Your task to perform on an android device: refresh tabs in the chrome app Image 0: 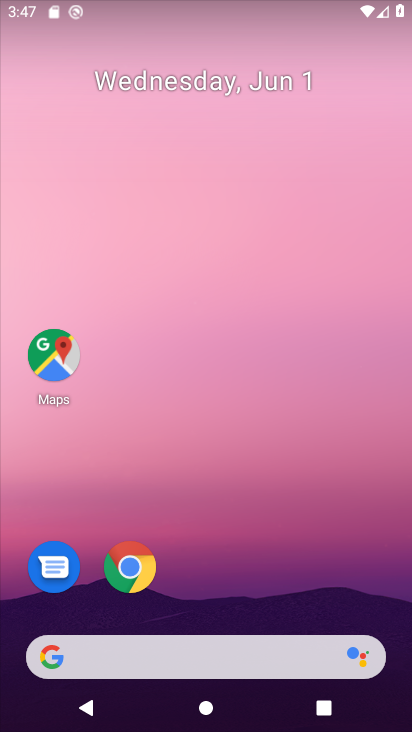
Step 0: click (136, 567)
Your task to perform on an android device: refresh tabs in the chrome app Image 1: 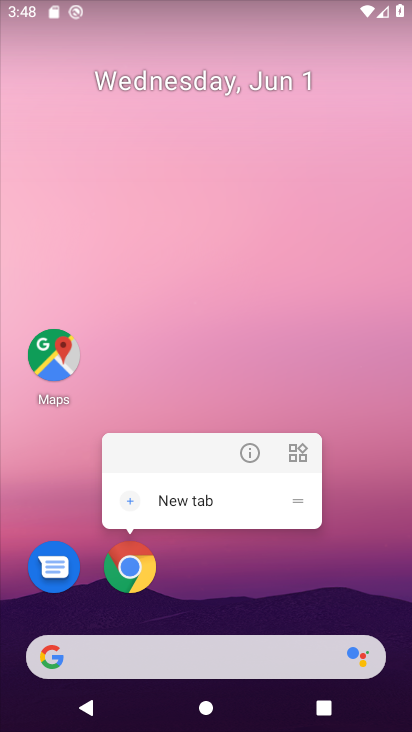
Step 1: click (135, 570)
Your task to perform on an android device: refresh tabs in the chrome app Image 2: 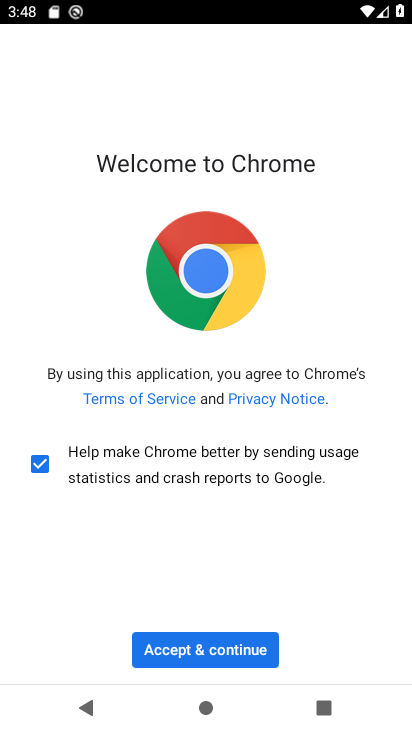
Step 2: click (170, 647)
Your task to perform on an android device: refresh tabs in the chrome app Image 3: 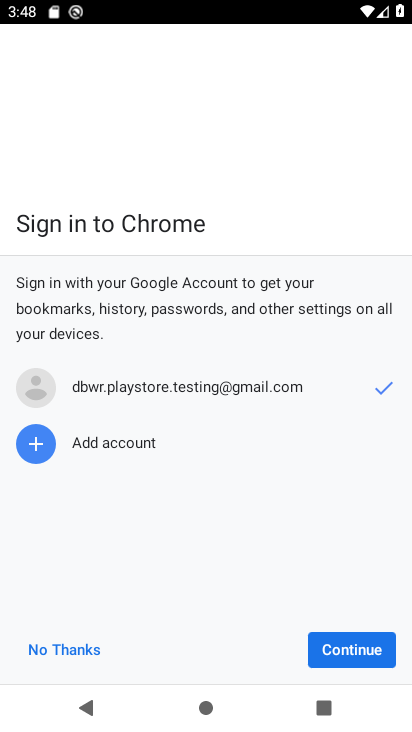
Step 3: click (341, 635)
Your task to perform on an android device: refresh tabs in the chrome app Image 4: 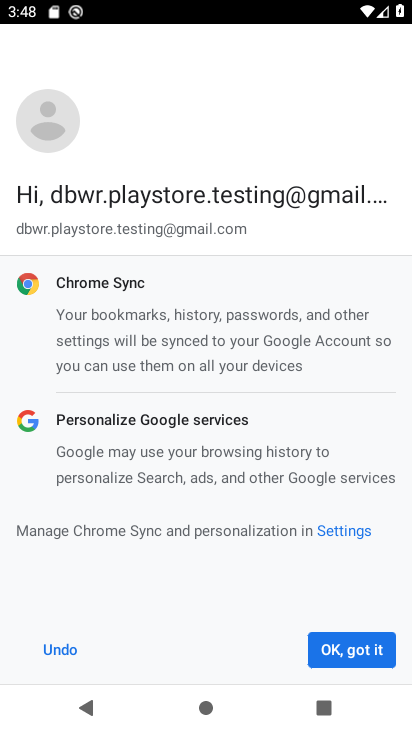
Step 4: click (360, 645)
Your task to perform on an android device: refresh tabs in the chrome app Image 5: 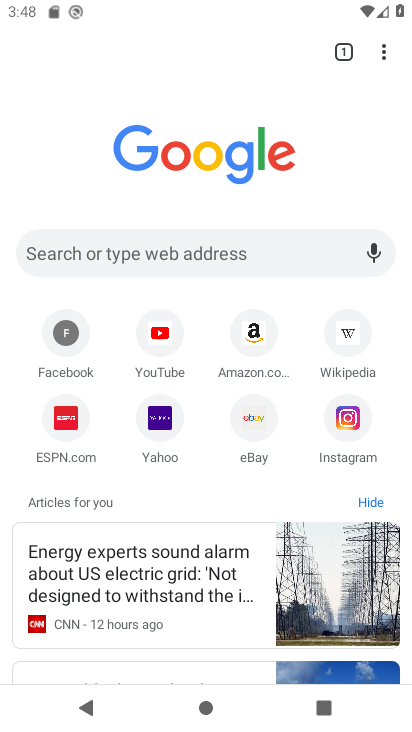
Step 5: click (384, 53)
Your task to perform on an android device: refresh tabs in the chrome app Image 6: 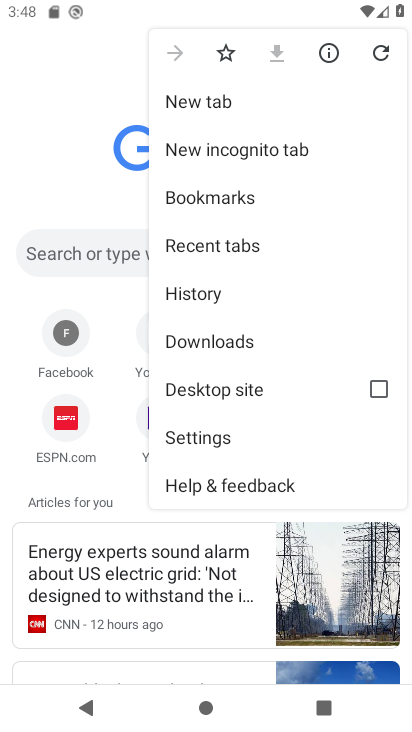
Step 6: click (363, 57)
Your task to perform on an android device: refresh tabs in the chrome app Image 7: 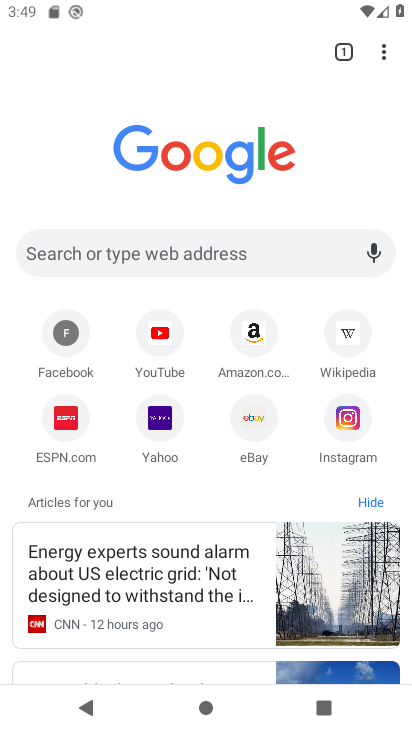
Step 7: task complete